Your task to perform on an android device: open app "eBay: The shopping marketplace" (install if not already installed) and enter user name: "articulated@icloud.com" and password: "excluding" Image 0: 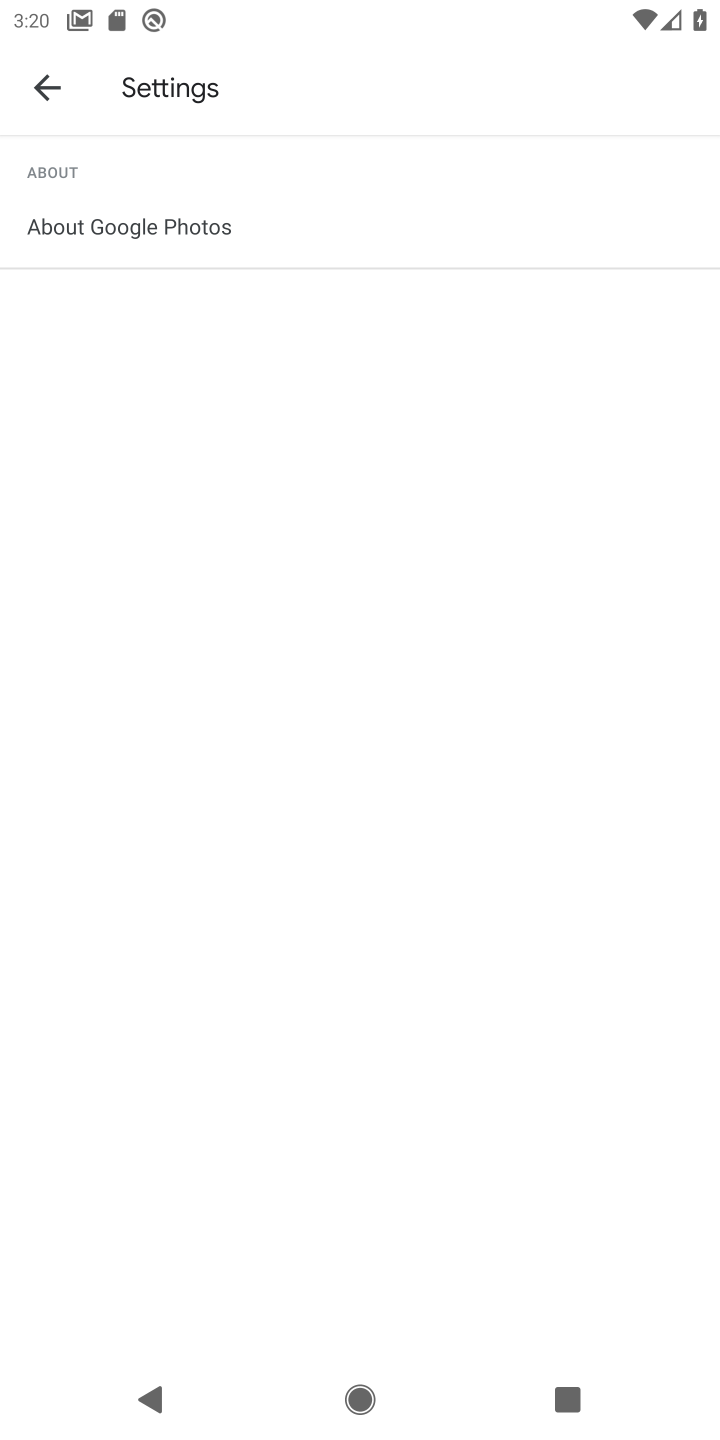
Step 0: click (39, 83)
Your task to perform on an android device: open app "eBay: The shopping marketplace" (install if not already installed) and enter user name: "articulated@icloud.com" and password: "excluding" Image 1: 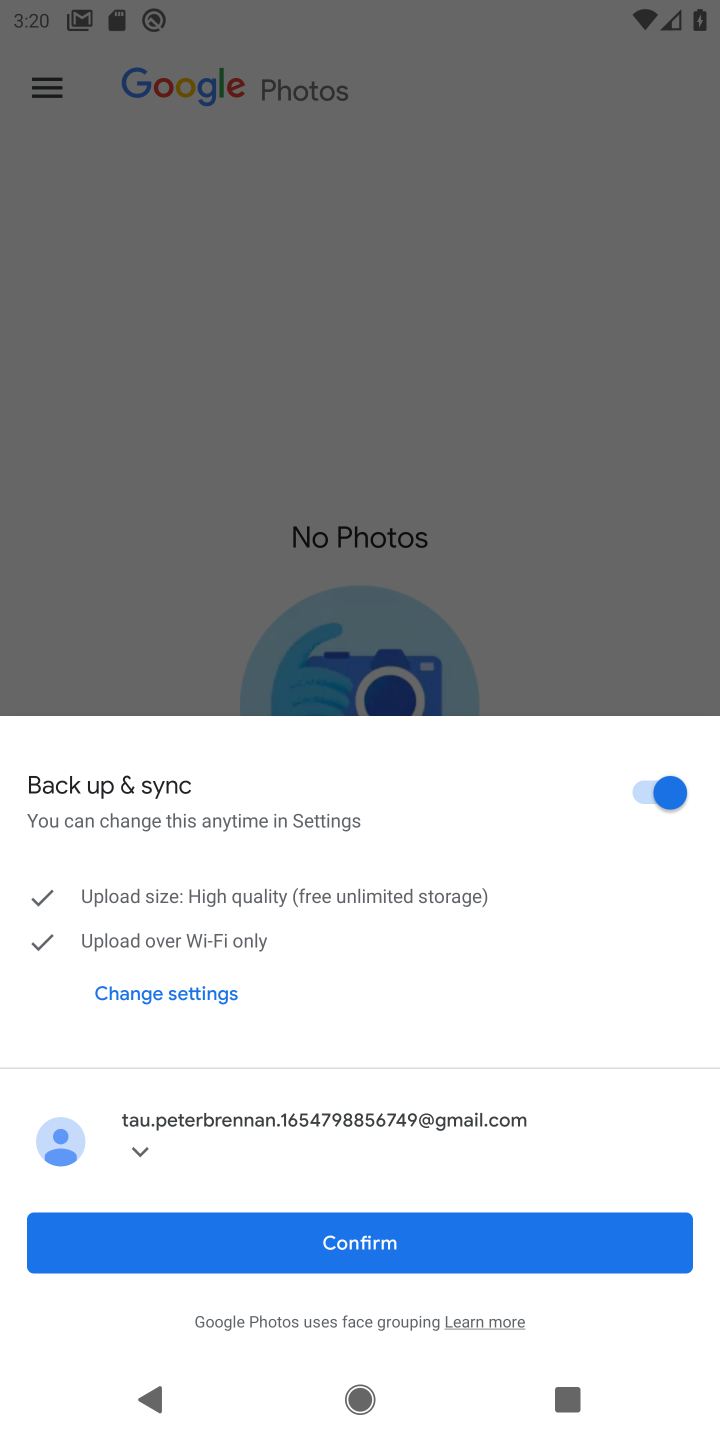
Step 1: press home button
Your task to perform on an android device: open app "eBay: The shopping marketplace" (install if not already installed) and enter user name: "articulated@icloud.com" and password: "excluding" Image 2: 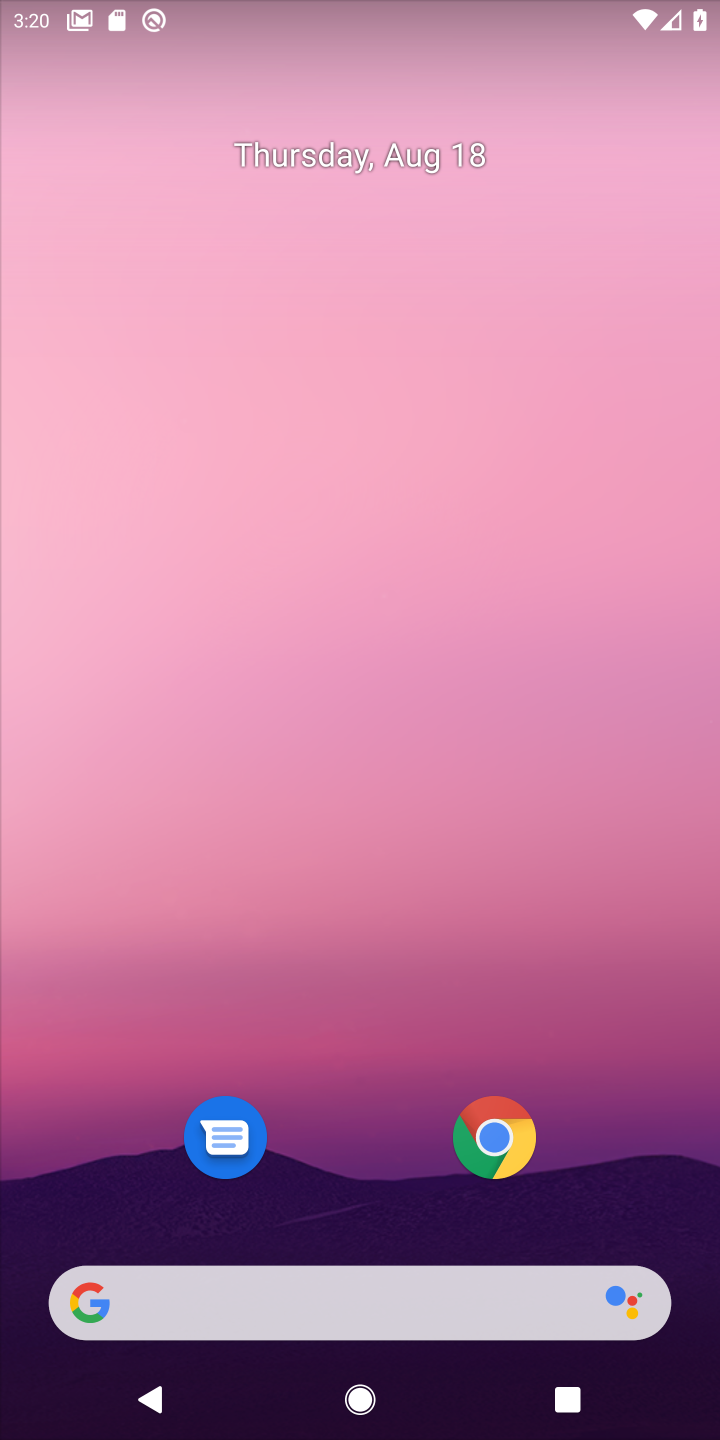
Step 2: drag from (293, 948) to (287, 383)
Your task to perform on an android device: open app "eBay: The shopping marketplace" (install if not already installed) and enter user name: "articulated@icloud.com" and password: "excluding" Image 3: 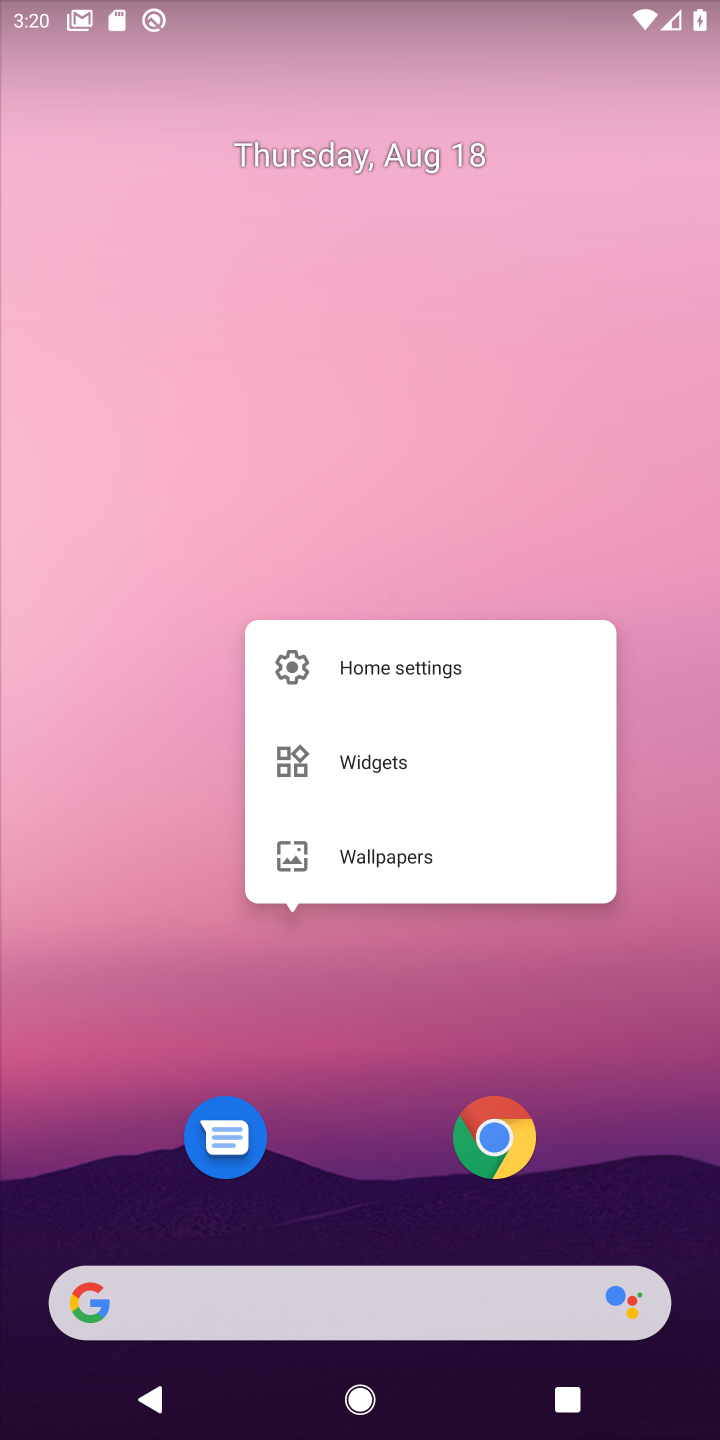
Step 3: click (324, 1189)
Your task to perform on an android device: open app "eBay: The shopping marketplace" (install if not already installed) and enter user name: "articulated@icloud.com" and password: "excluding" Image 4: 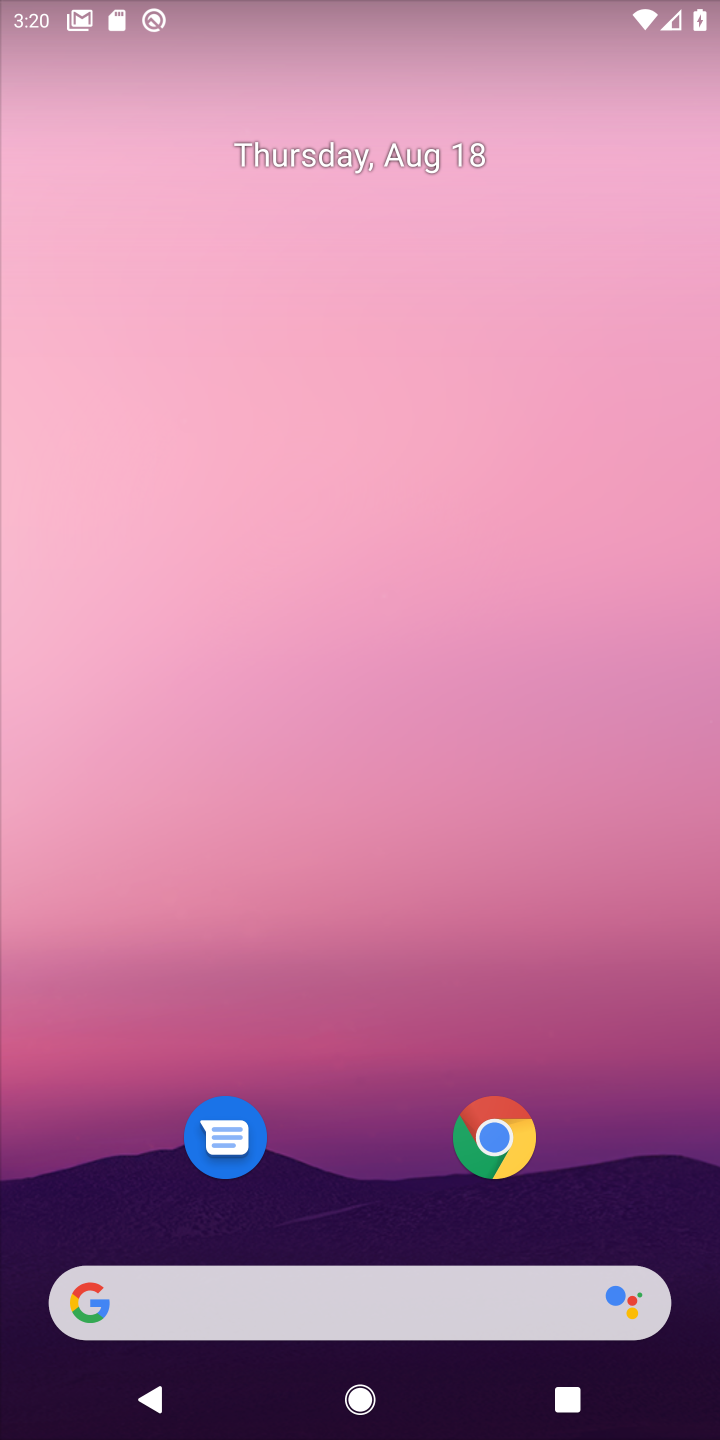
Step 4: drag from (324, 1175) to (269, 178)
Your task to perform on an android device: open app "eBay: The shopping marketplace" (install if not already installed) and enter user name: "articulated@icloud.com" and password: "excluding" Image 5: 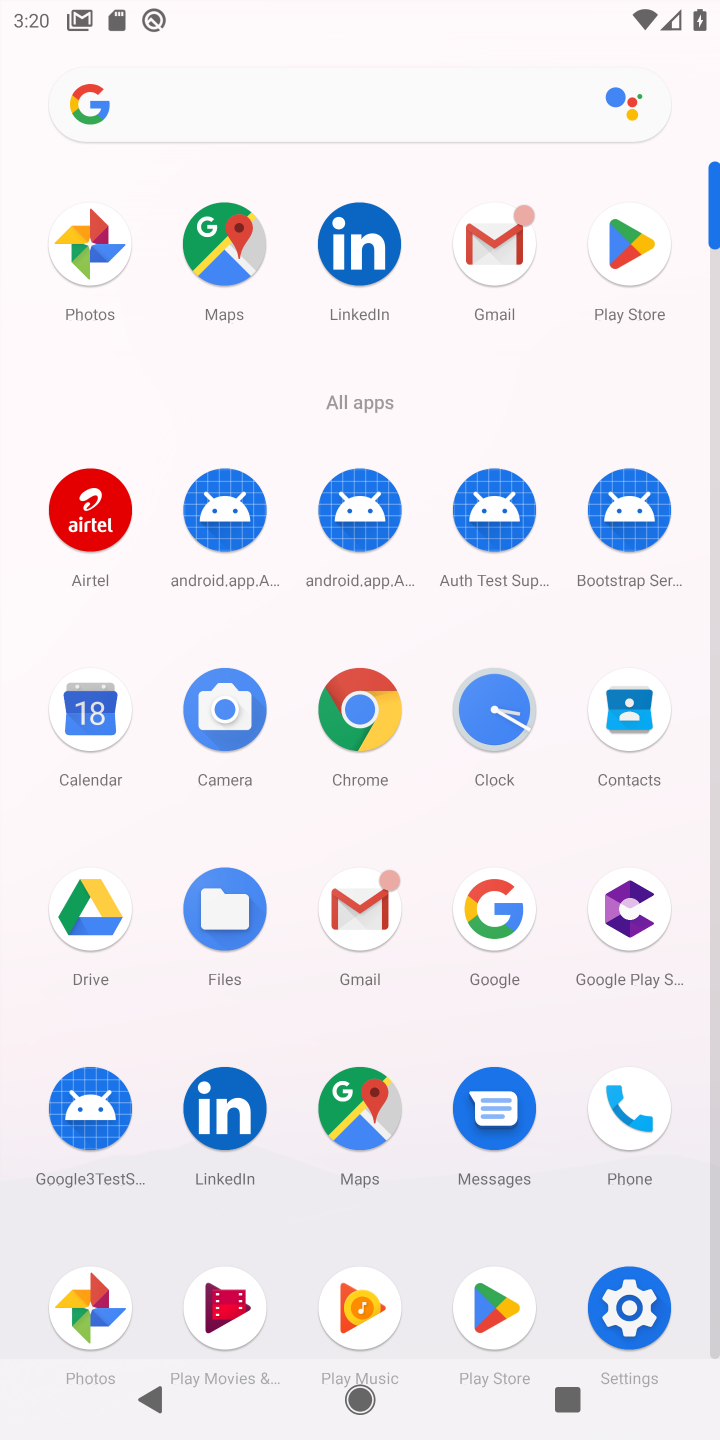
Step 5: click (634, 248)
Your task to perform on an android device: open app "eBay: The shopping marketplace" (install if not already installed) and enter user name: "articulated@icloud.com" and password: "excluding" Image 6: 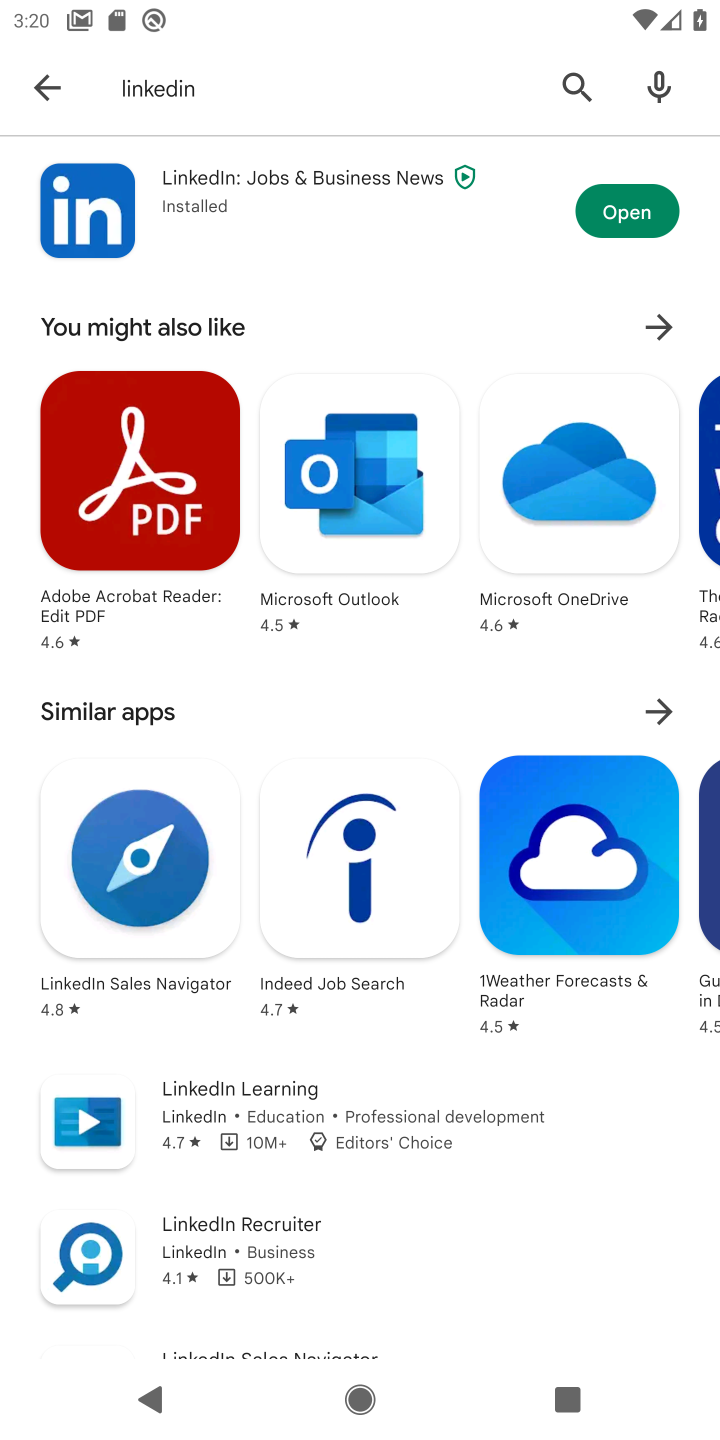
Step 6: click (46, 84)
Your task to perform on an android device: open app "eBay: The shopping marketplace" (install if not already installed) and enter user name: "articulated@icloud.com" and password: "excluding" Image 7: 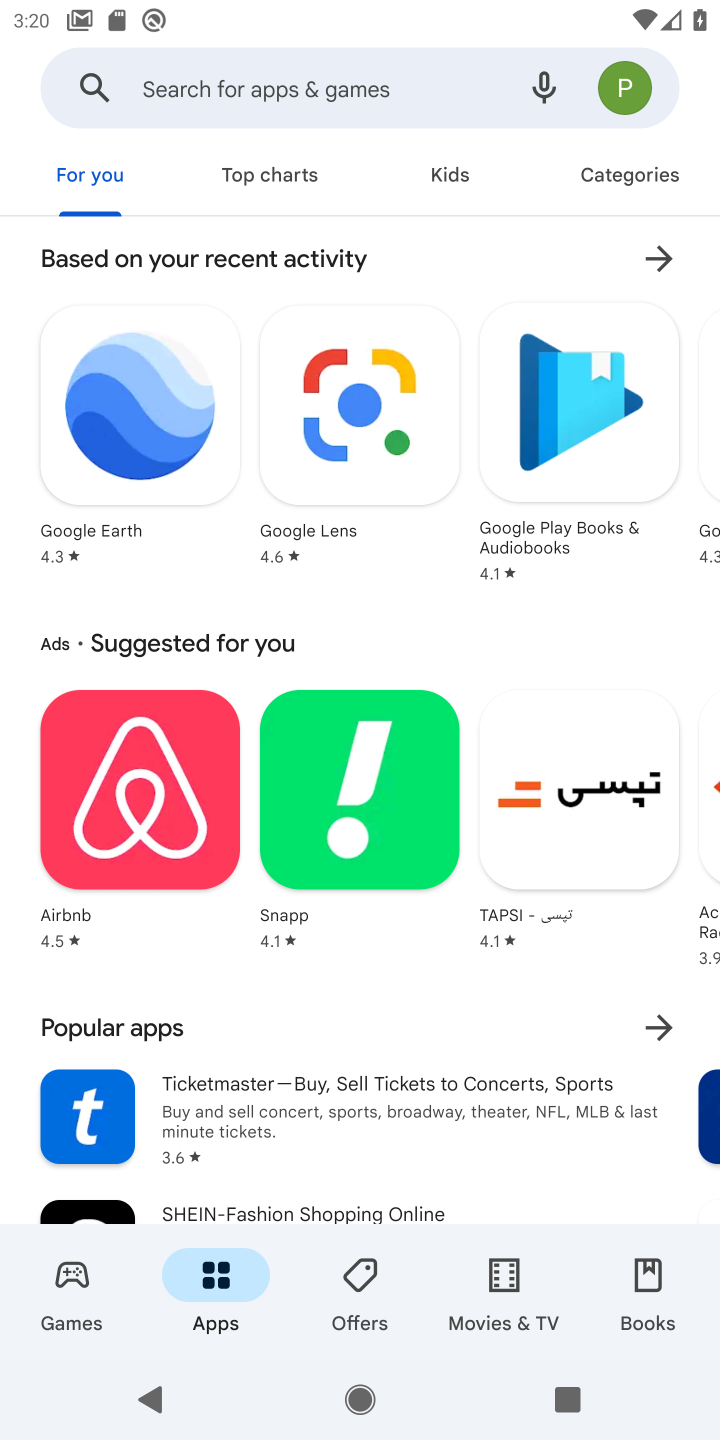
Step 7: click (267, 75)
Your task to perform on an android device: open app "eBay: The shopping marketplace" (install if not already installed) and enter user name: "articulated@icloud.com" and password: "excluding" Image 8: 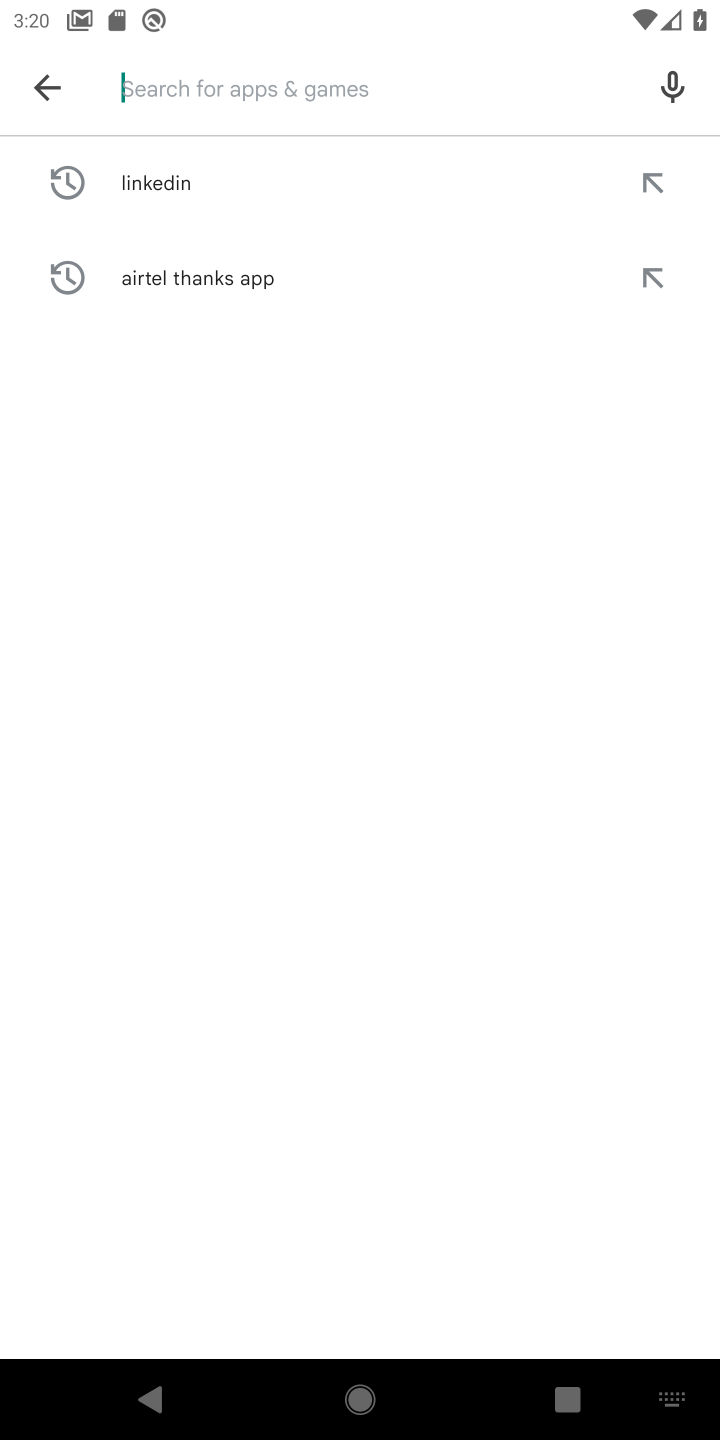
Step 8: type "eBay"
Your task to perform on an android device: open app "eBay: The shopping marketplace" (install if not already installed) and enter user name: "articulated@icloud.com" and password: "excluding" Image 9: 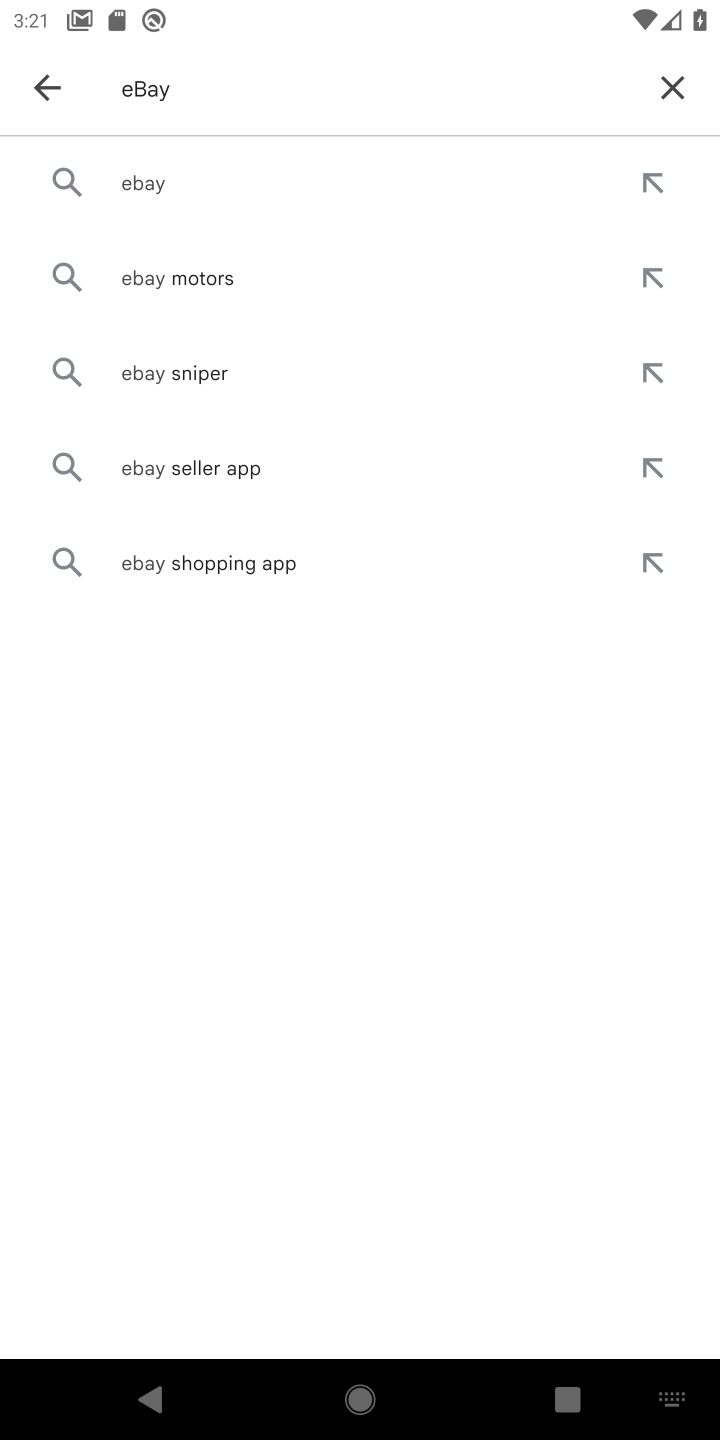
Step 9: click (132, 179)
Your task to perform on an android device: open app "eBay: The shopping marketplace" (install if not already installed) and enter user name: "articulated@icloud.com" and password: "excluding" Image 10: 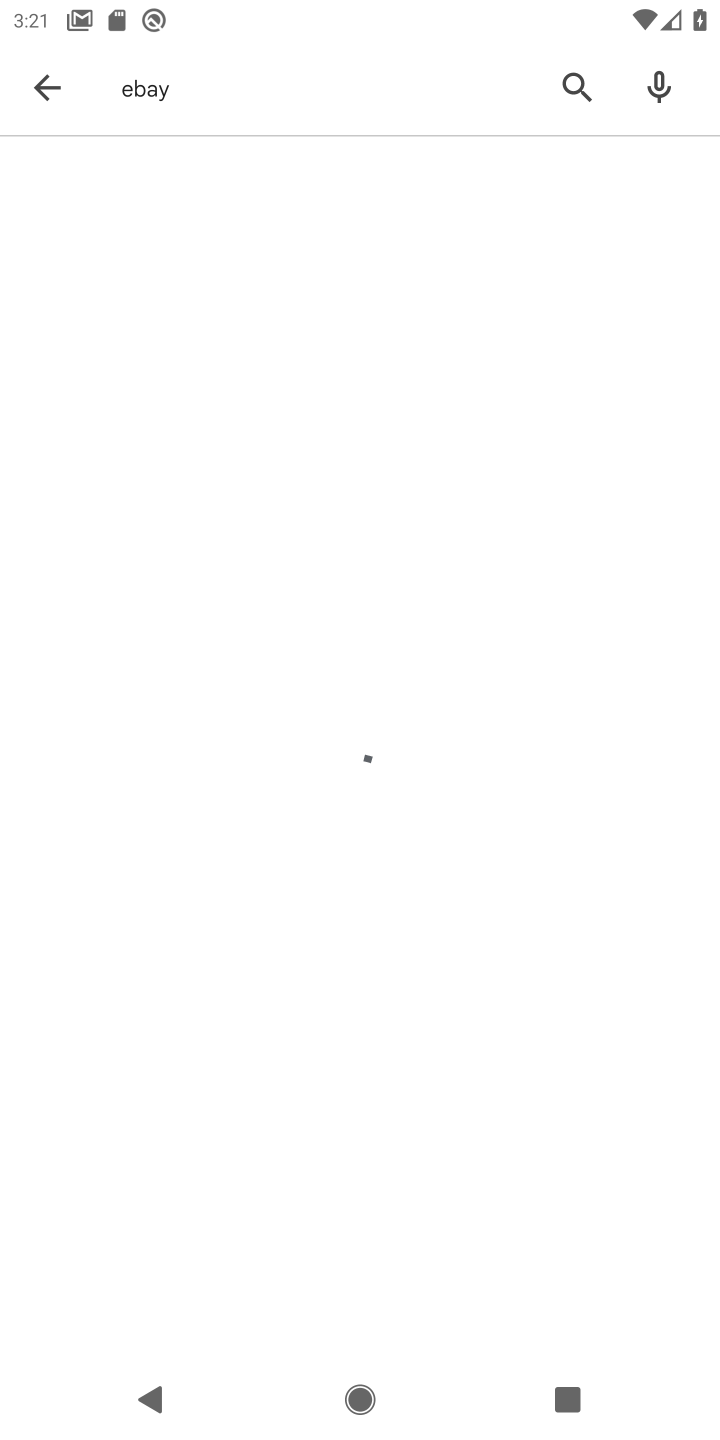
Step 10: click (138, 191)
Your task to perform on an android device: open app "eBay: The shopping marketplace" (install if not already installed) and enter user name: "articulated@icloud.com" and password: "excluding" Image 11: 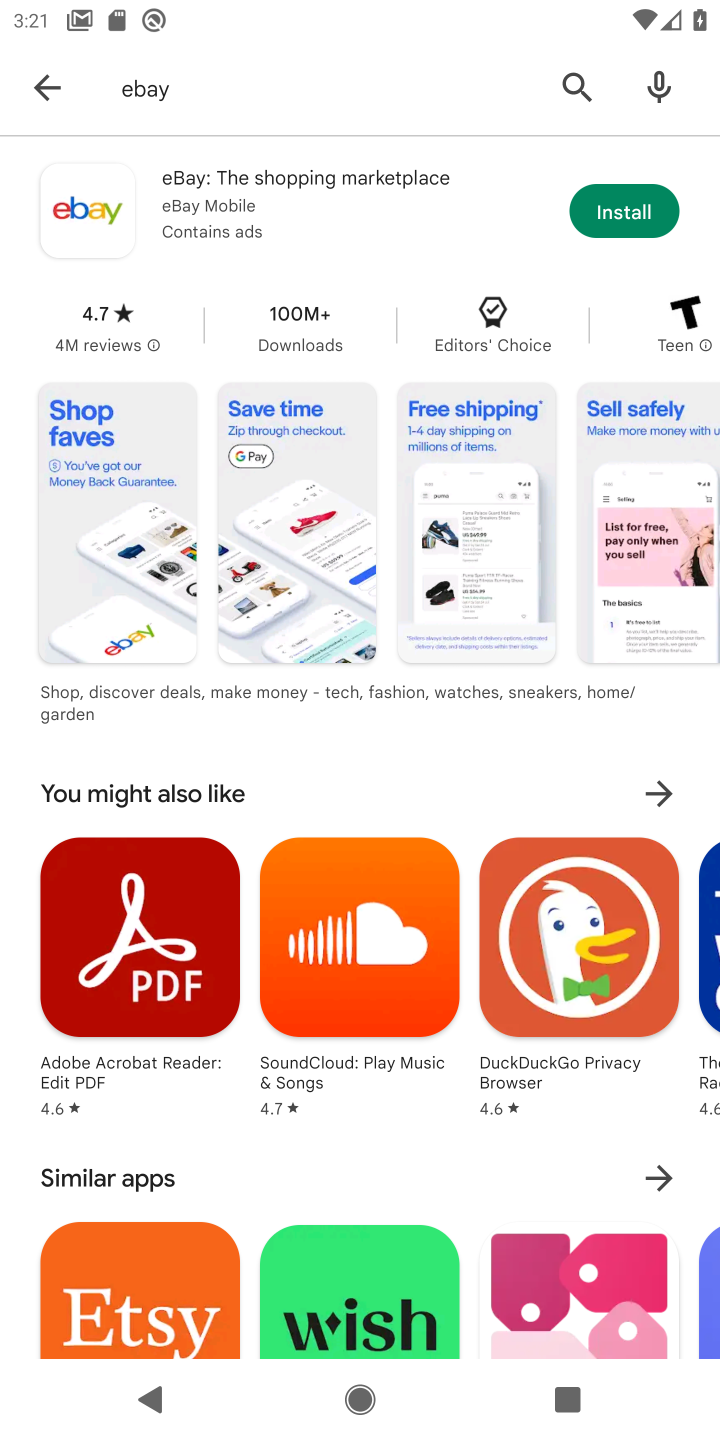
Step 11: click (619, 207)
Your task to perform on an android device: open app "eBay: The shopping marketplace" (install if not already installed) and enter user name: "articulated@icloud.com" and password: "excluding" Image 12: 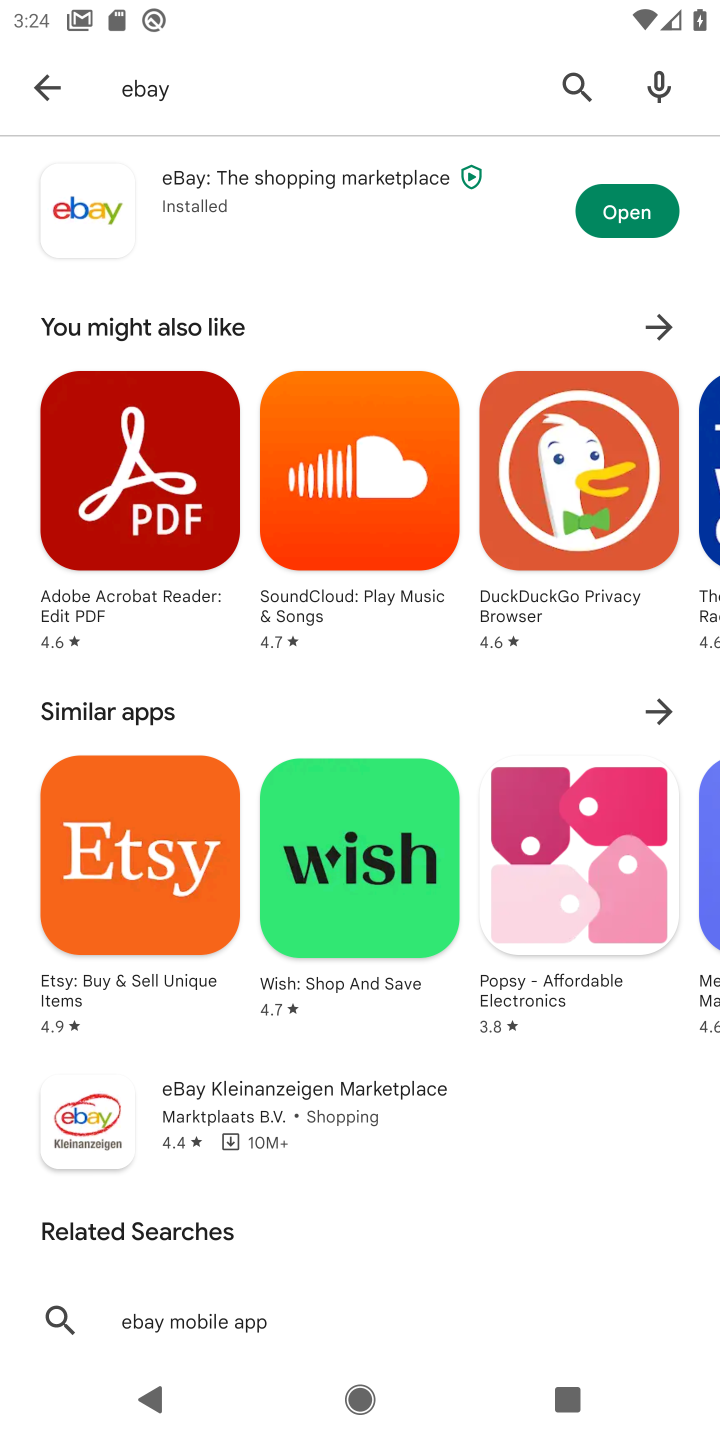
Step 12: click (611, 211)
Your task to perform on an android device: open app "eBay: The shopping marketplace" (install if not already installed) and enter user name: "articulated@icloud.com" and password: "excluding" Image 13: 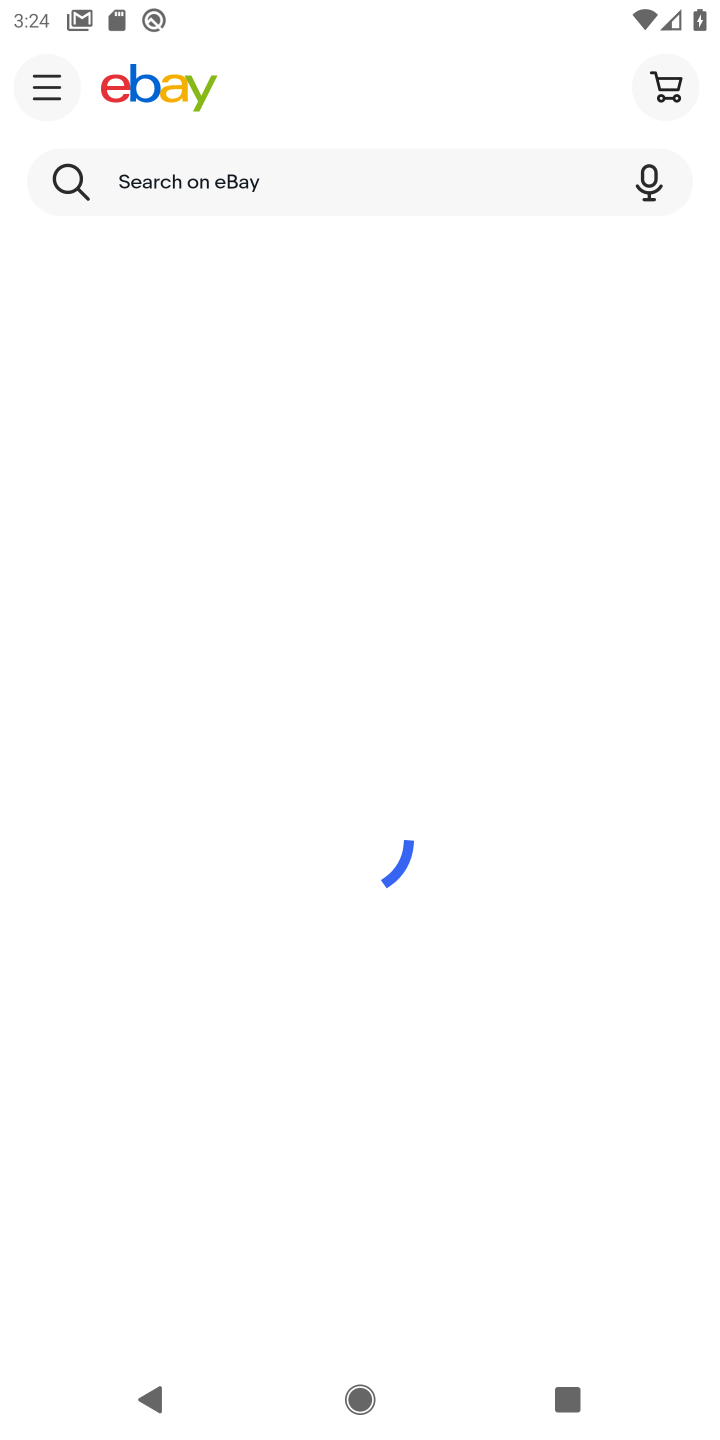
Step 13: click (57, 78)
Your task to perform on an android device: open app "eBay: The shopping marketplace" (install if not already installed) and enter user name: "articulated@icloud.com" and password: "excluding" Image 14: 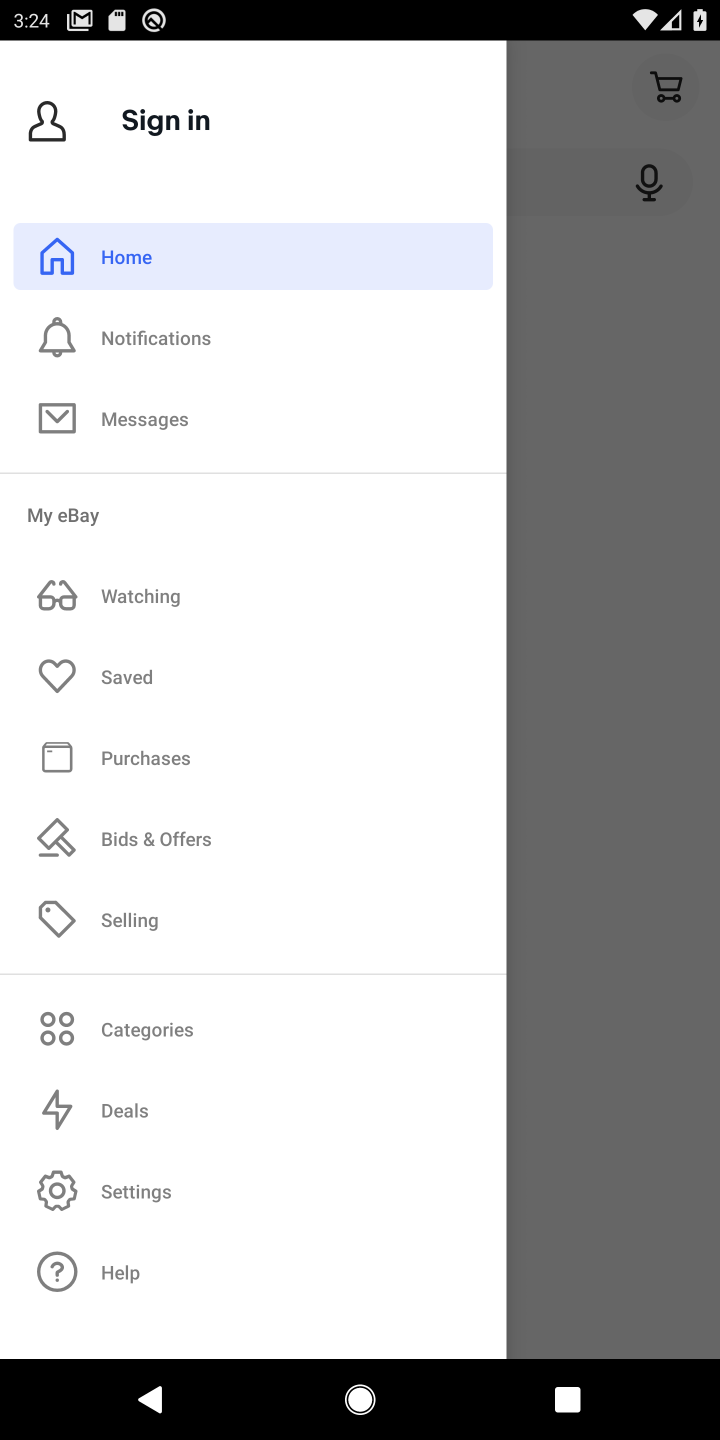
Step 14: click (158, 121)
Your task to perform on an android device: open app "eBay: The shopping marketplace" (install if not already installed) and enter user name: "articulated@icloud.com" and password: "excluding" Image 15: 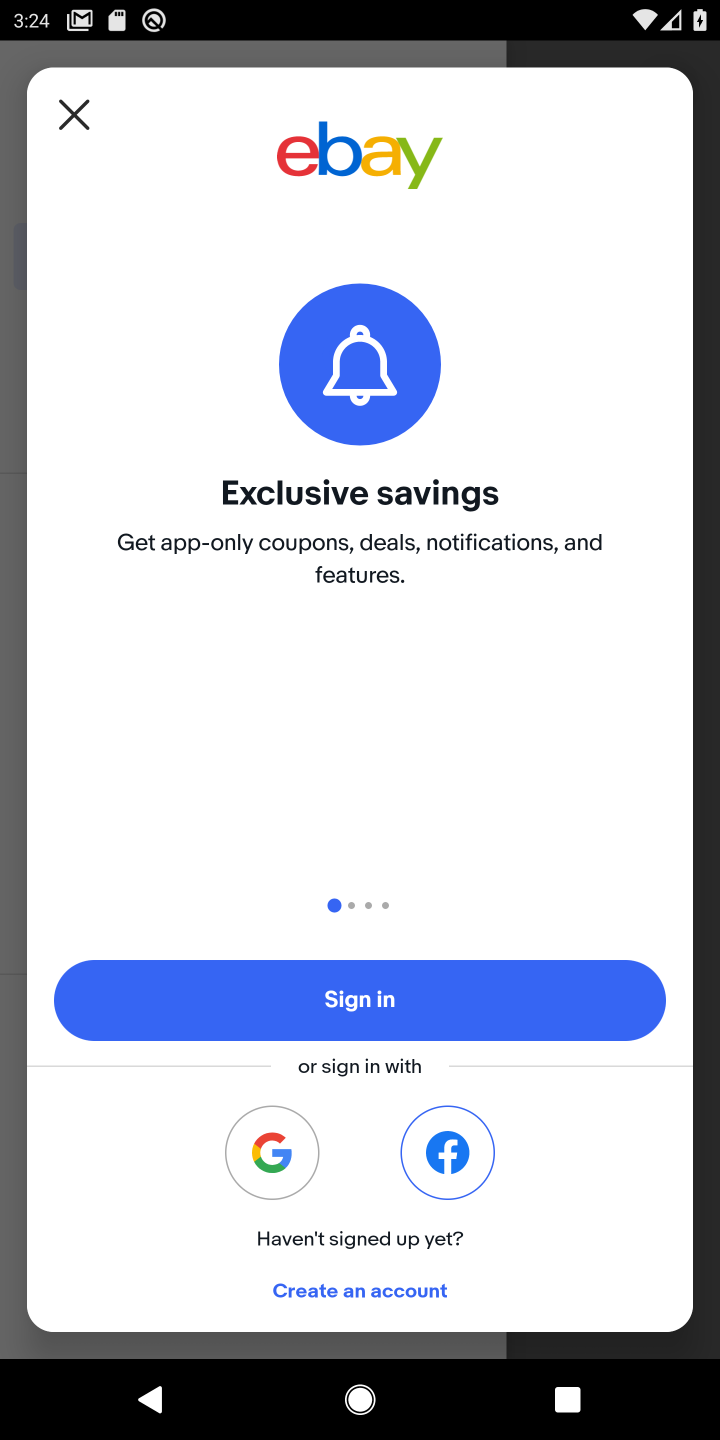
Step 15: click (373, 1017)
Your task to perform on an android device: open app "eBay: The shopping marketplace" (install if not already installed) and enter user name: "articulated@icloud.com" and password: "excluding" Image 16: 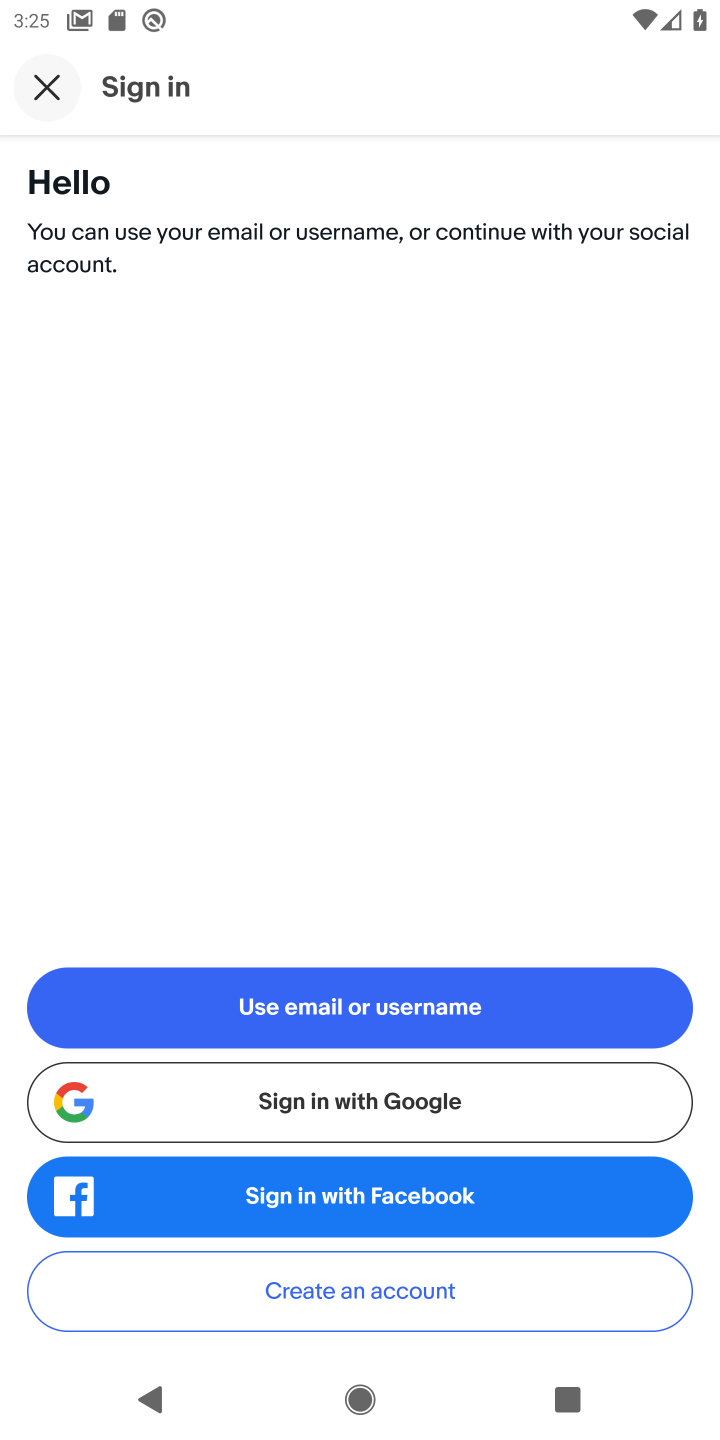
Step 16: click (383, 1014)
Your task to perform on an android device: open app "eBay: The shopping marketplace" (install if not already installed) and enter user name: "articulated@icloud.com" and password: "excluding" Image 17: 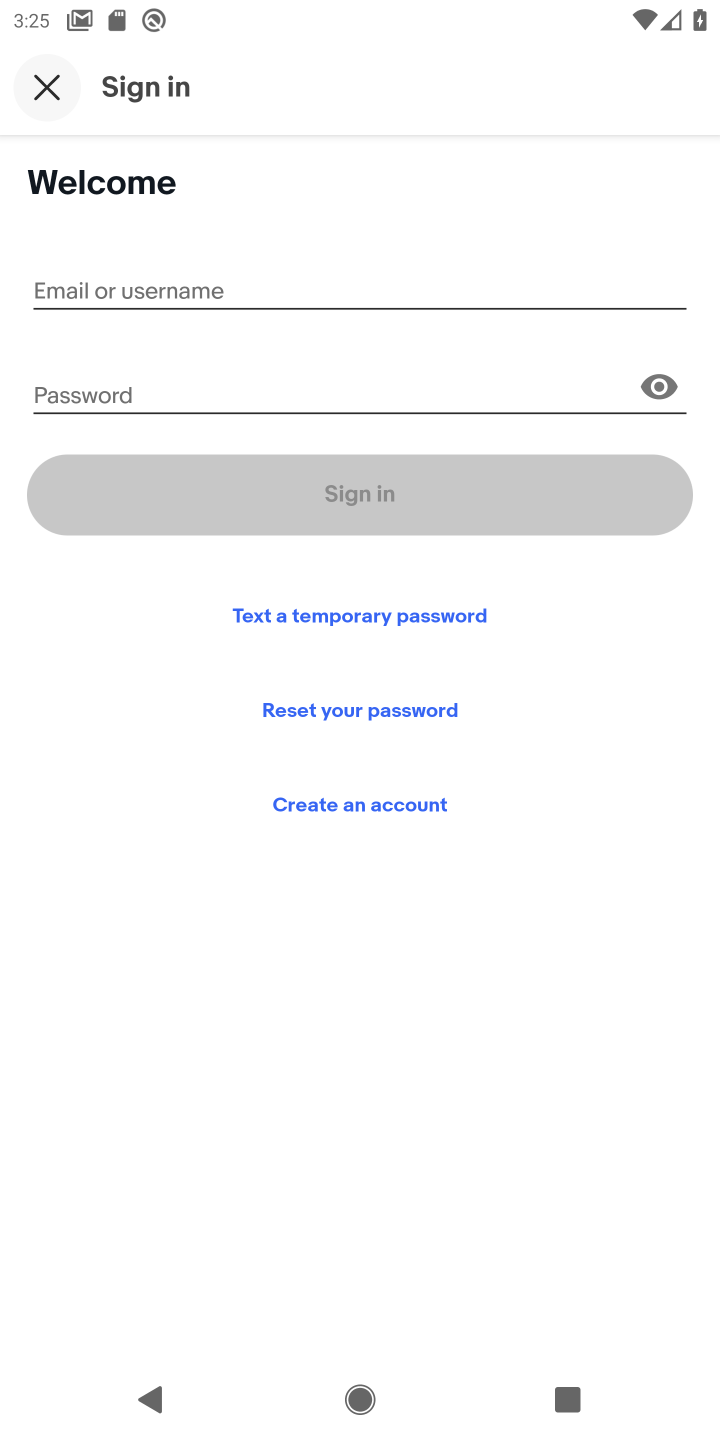
Step 17: click (346, 259)
Your task to perform on an android device: open app "eBay: The shopping marketplace" (install if not already installed) and enter user name: "articulated@icloud.com" and password: "excluding" Image 18: 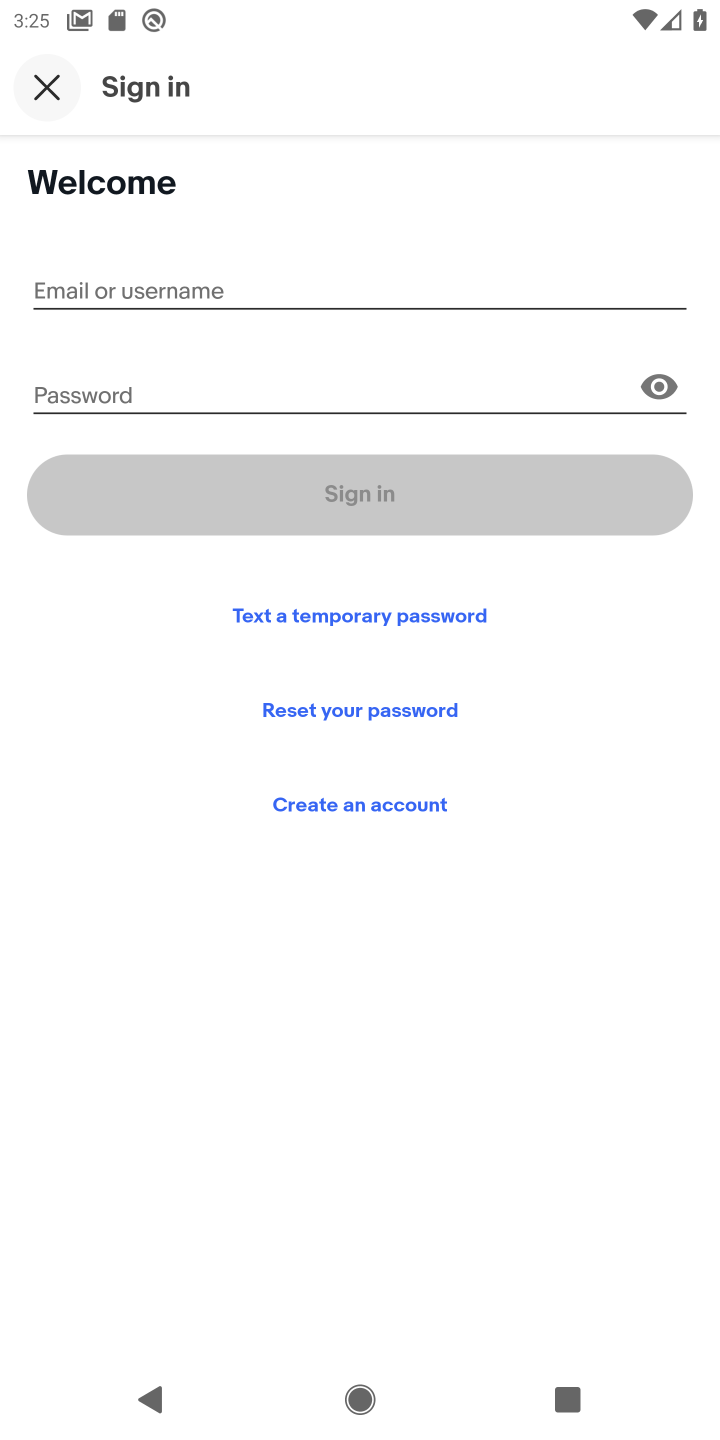
Step 18: click (183, 277)
Your task to perform on an android device: open app "eBay: The shopping marketplace" (install if not already installed) and enter user name: "articulated@icloud.com" and password: "excluding" Image 19: 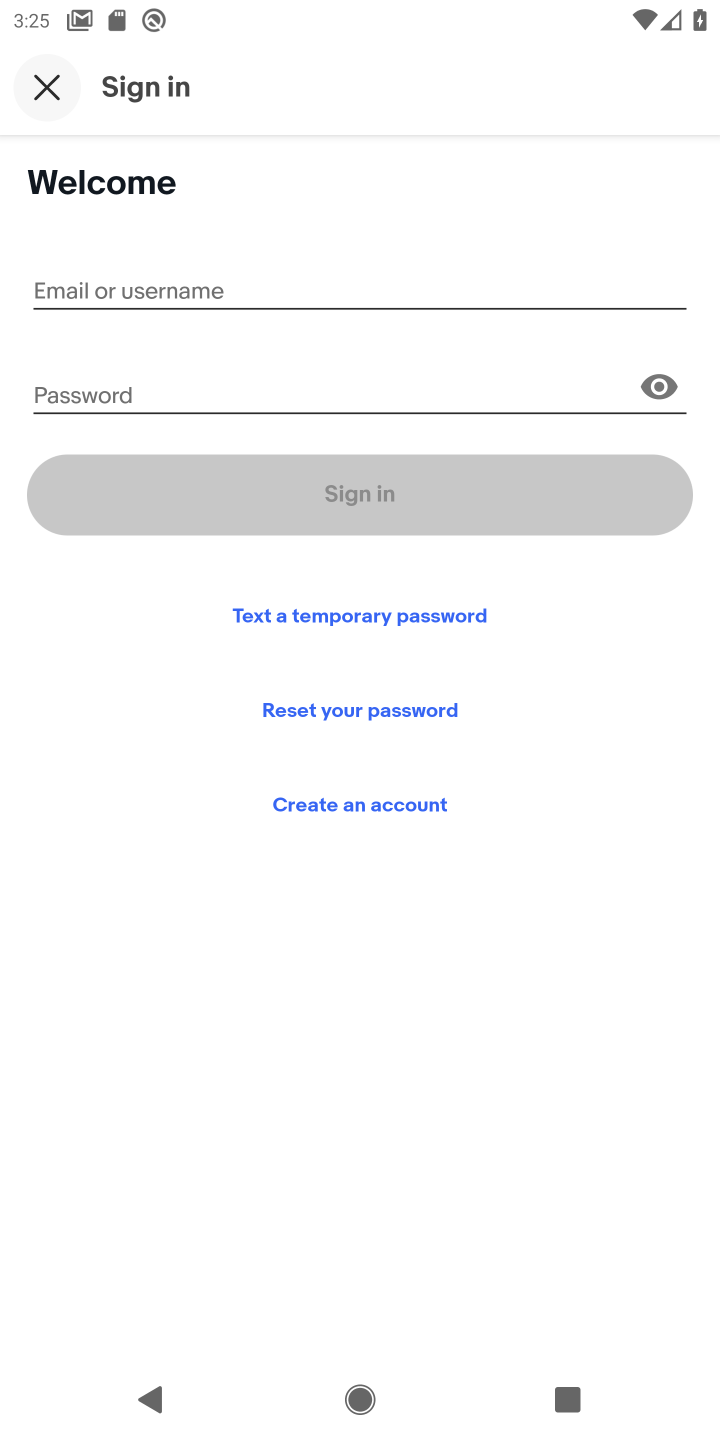
Step 19: click (183, 277)
Your task to perform on an android device: open app "eBay: The shopping marketplace" (install if not already installed) and enter user name: "articulated@icloud.com" and password: "excluding" Image 20: 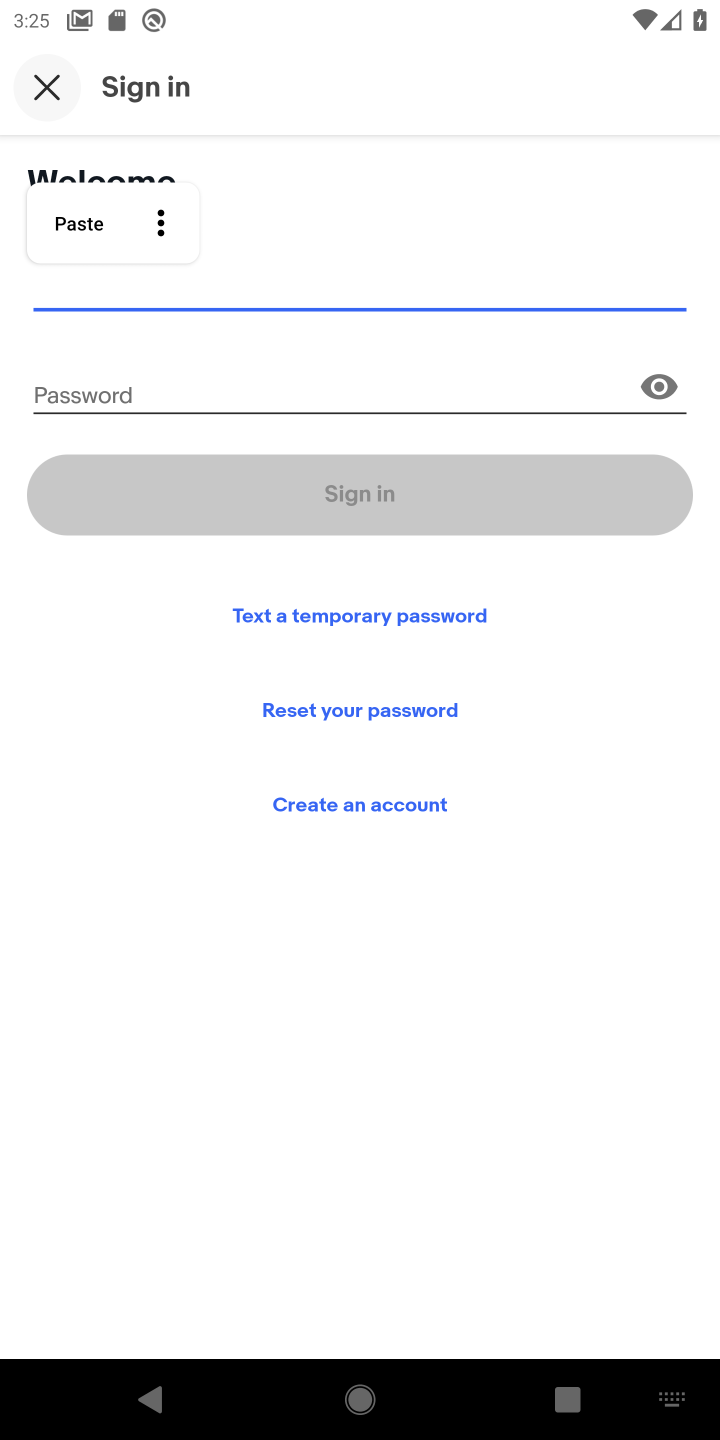
Step 20: type "articulated@icloud.com"
Your task to perform on an android device: open app "eBay: The shopping marketplace" (install if not already installed) and enter user name: "articulated@icloud.com" and password: "excluding" Image 21: 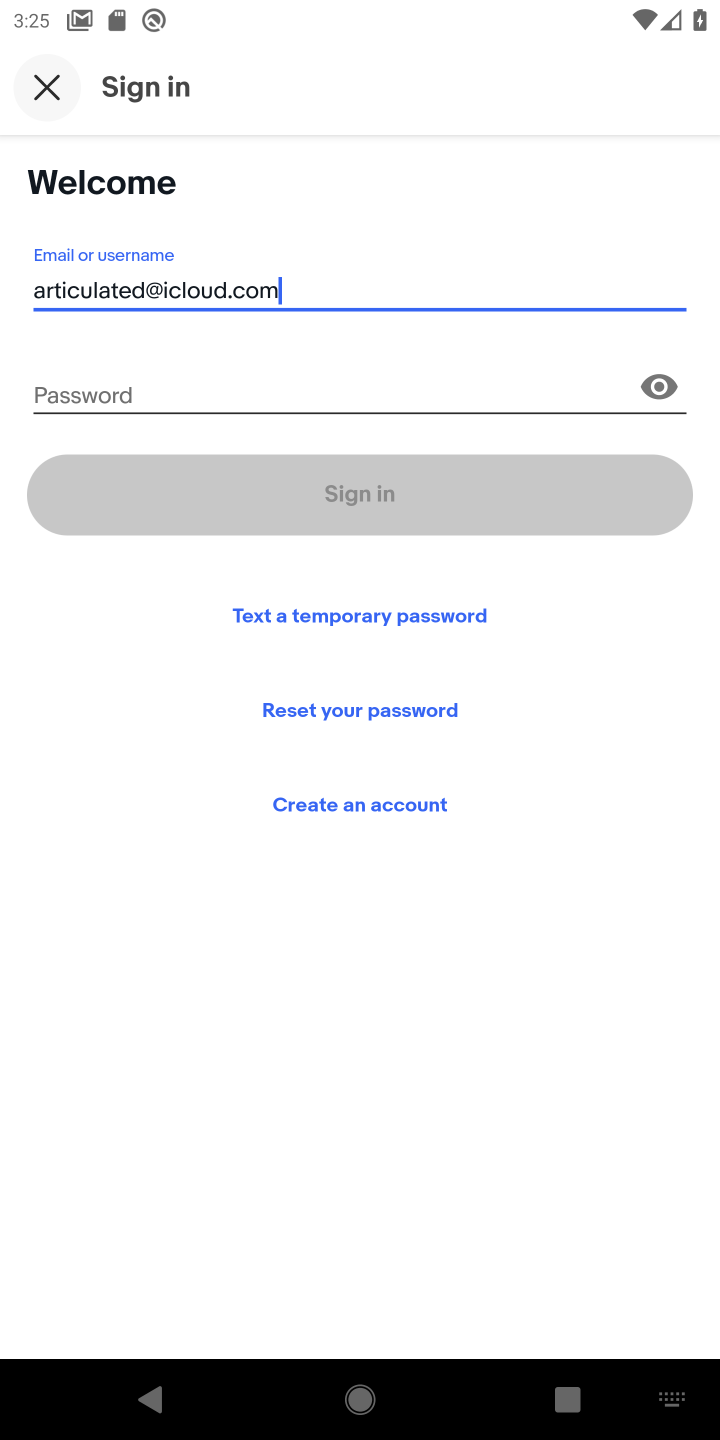
Step 21: click (273, 392)
Your task to perform on an android device: open app "eBay: The shopping marketplace" (install if not already installed) and enter user name: "articulated@icloud.com" and password: "excluding" Image 22: 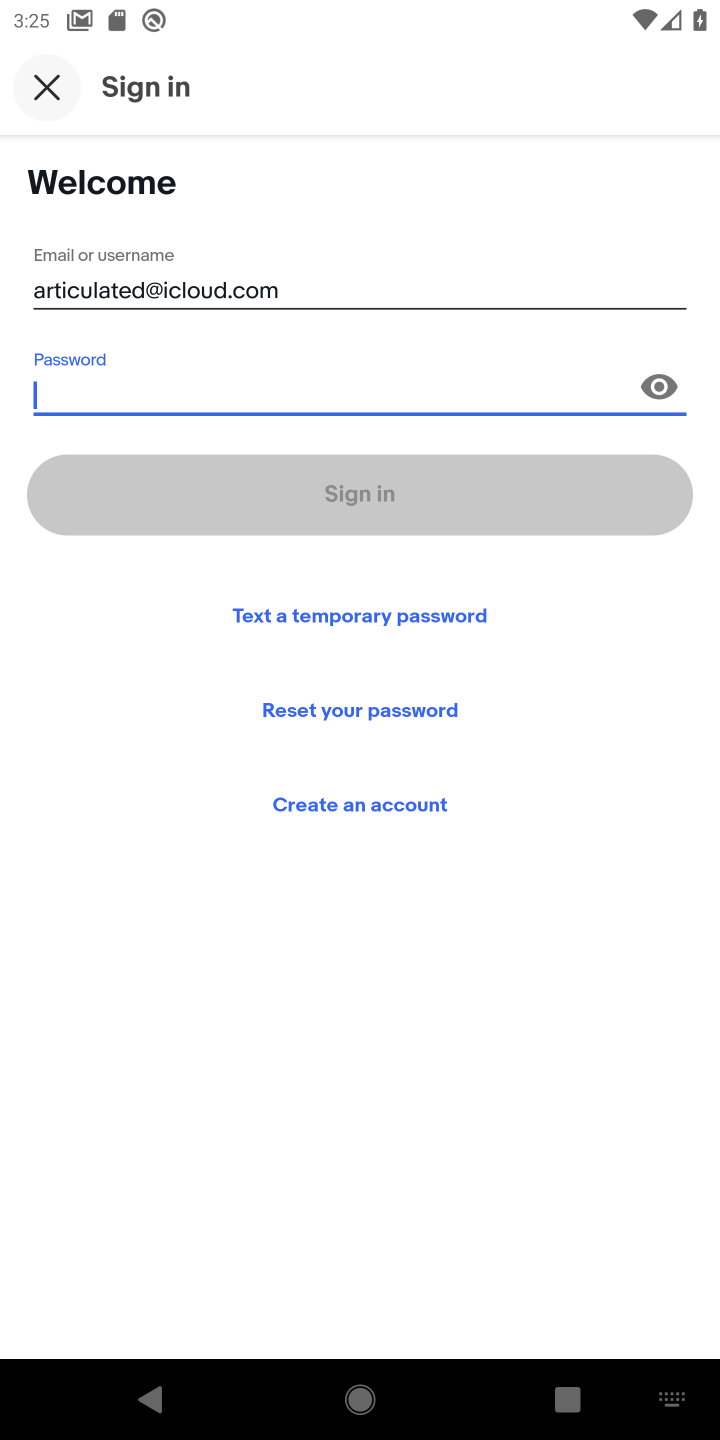
Step 22: type "excluding"
Your task to perform on an android device: open app "eBay: The shopping marketplace" (install if not already installed) and enter user name: "articulated@icloud.com" and password: "excluding" Image 23: 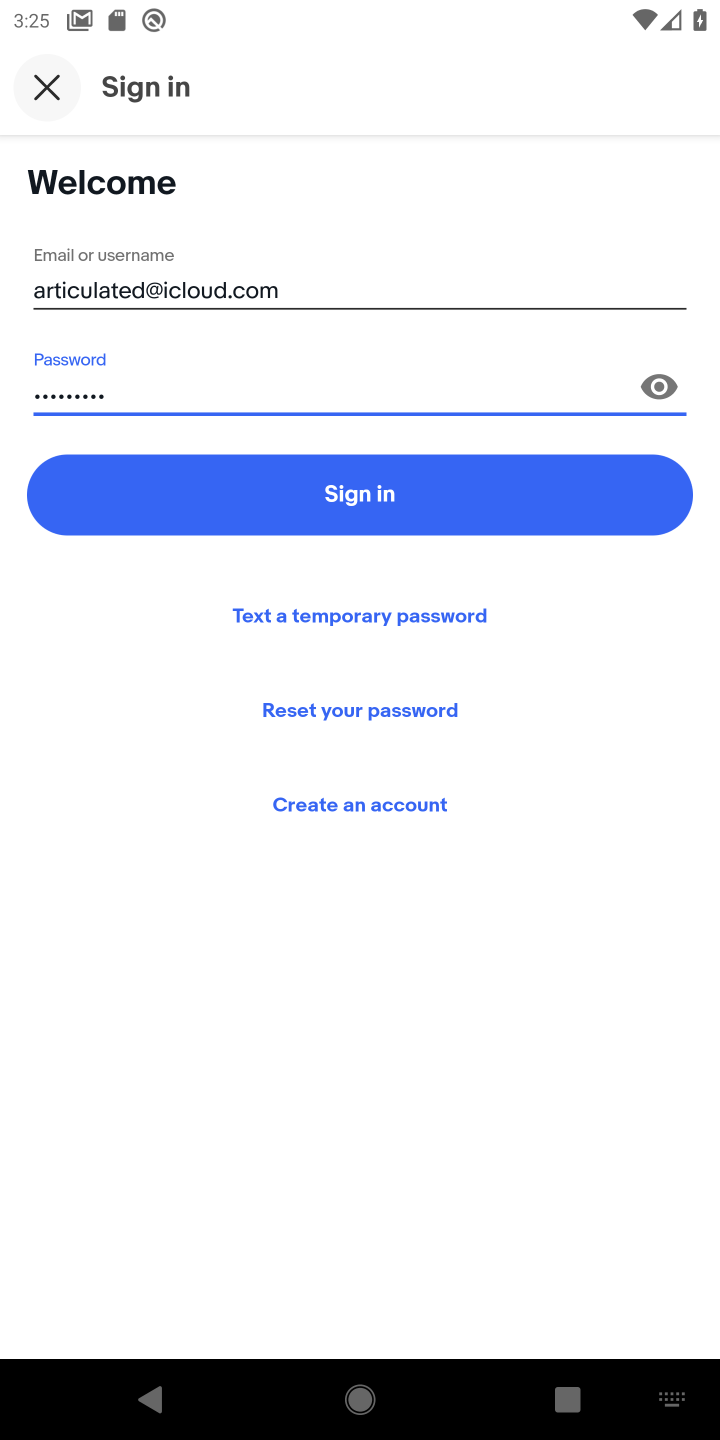
Step 23: task complete